Your task to perform on an android device: toggle location history Image 0: 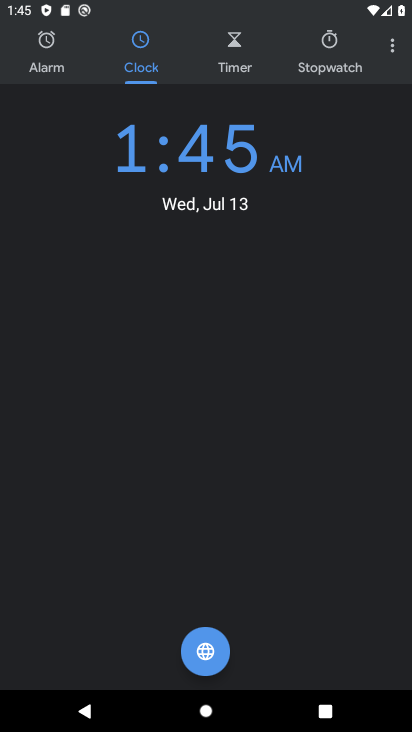
Step 0: press home button
Your task to perform on an android device: toggle location history Image 1: 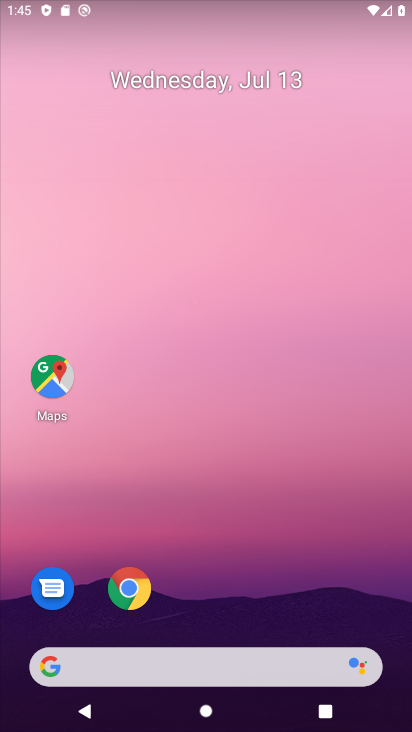
Step 1: drag from (182, 625) to (141, 111)
Your task to perform on an android device: toggle location history Image 2: 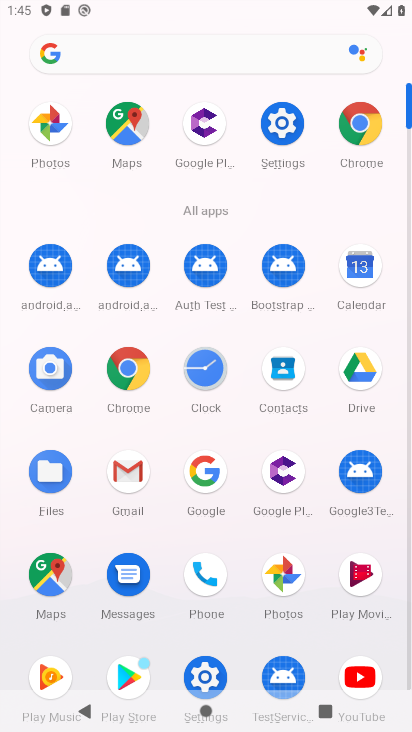
Step 2: click (278, 124)
Your task to perform on an android device: toggle location history Image 3: 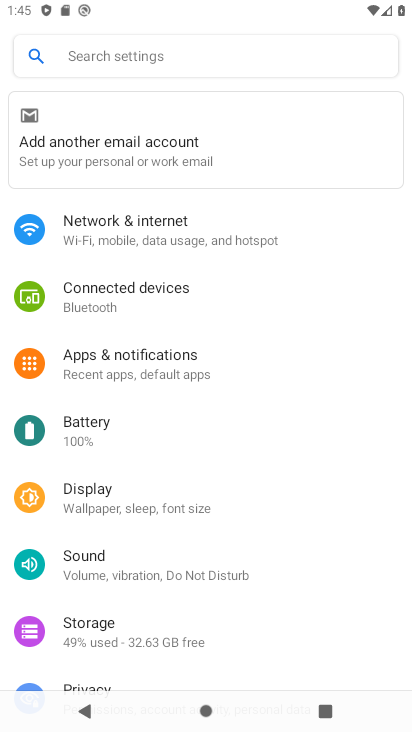
Step 3: drag from (106, 618) to (98, 286)
Your task to perform on an android device: toggle location history Image 4: 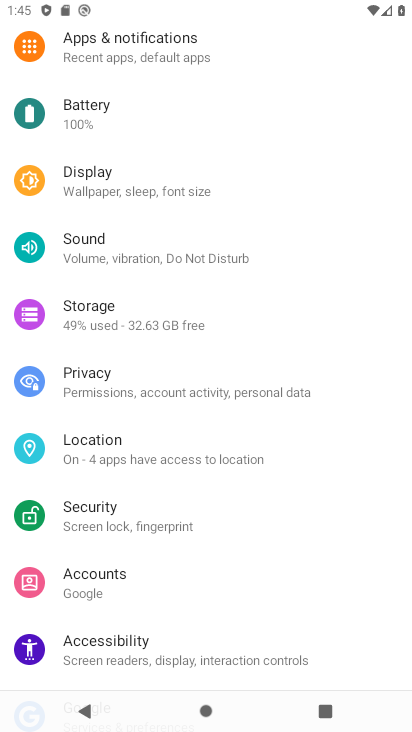
Step 4: click (83, 444)
Your task to perform on an android device: toggle location history Image 5: 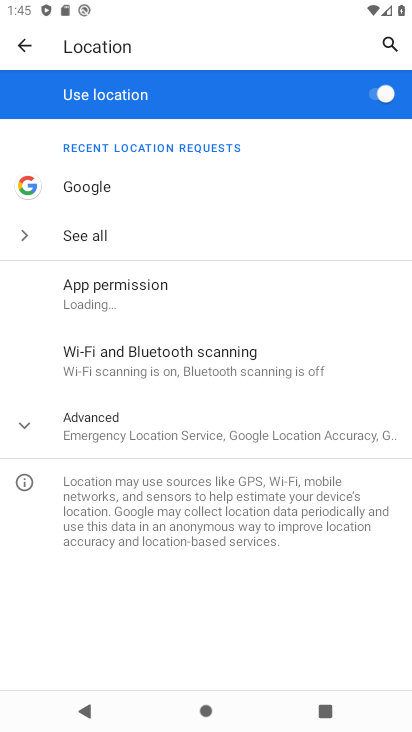
Step 5: click (95, 437)
Your task to perform on an android device: toggle location history Image 6: 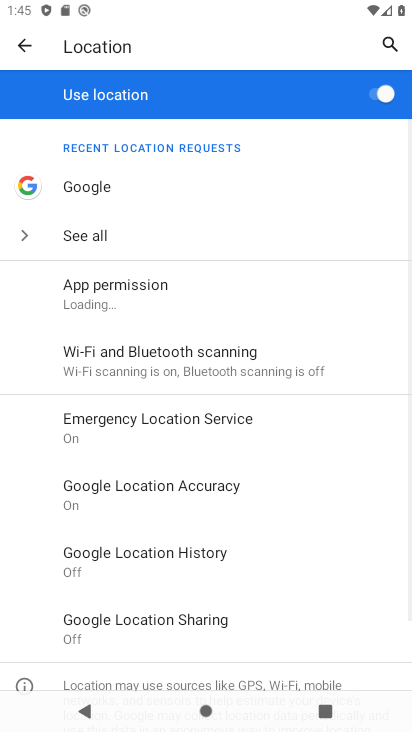
Step 6: click (159, 546)
Your task to perform on an android device: toggle location history Image 7: 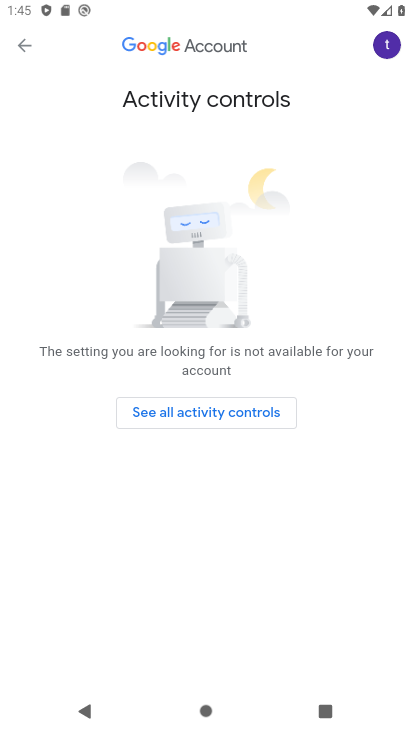
Step 7: click (180, 417)
Your task to perform on an android device: toggle location history Image 8: 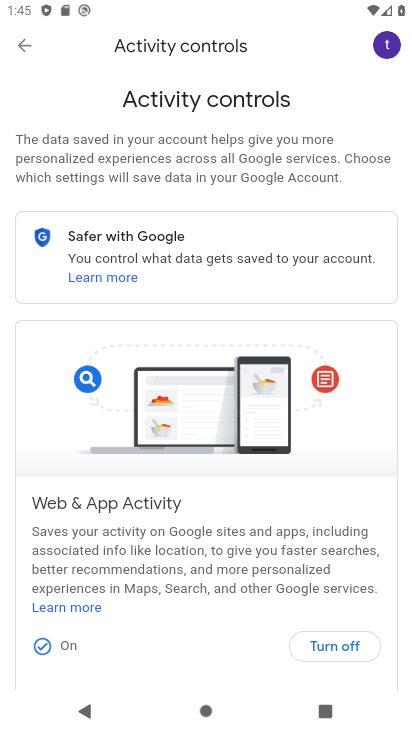
Step 8: click (323, 644)
Your task to perform on an android device: toggle location history Image 9: 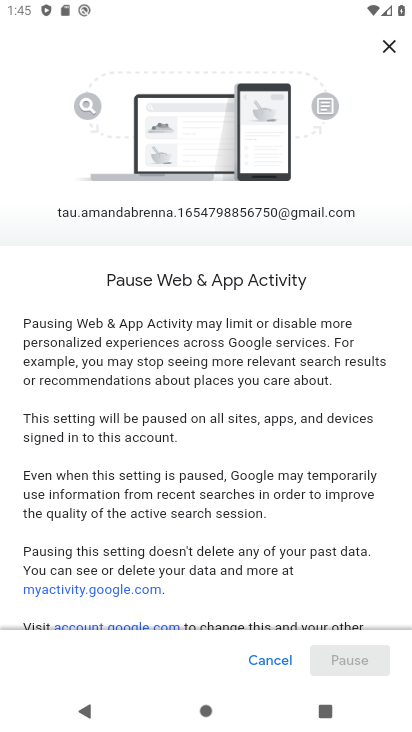
Step 9: drag from (331, 600) to (292, 140)
Your task to perform on an android device: toggle location history Image 10: 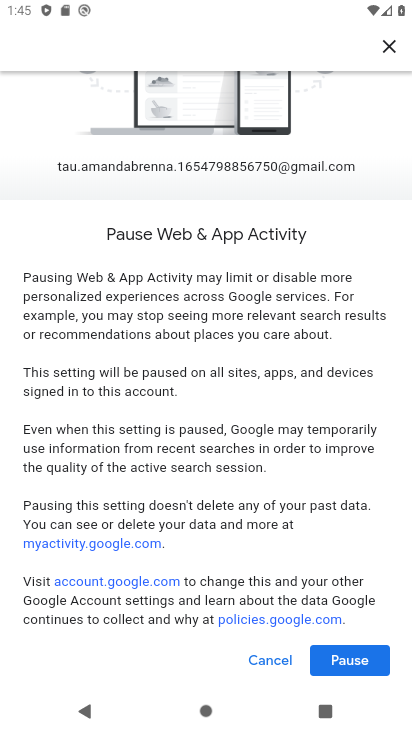
Step 10: click (335, 673)
Your task to perform on an android device: toggle location history Image 11: 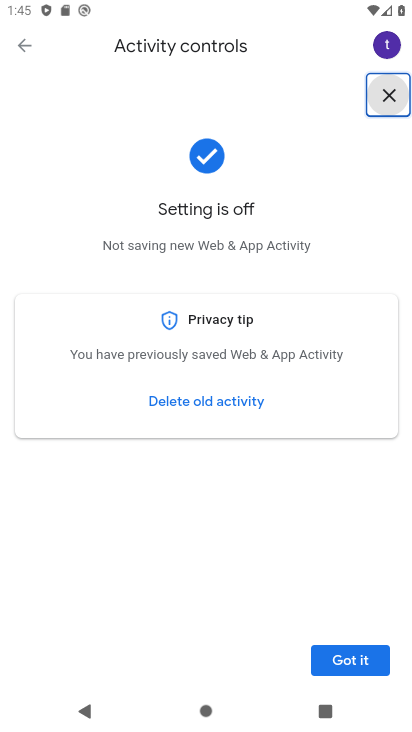
Step 11: click (351, 663)
Your task to perform on an android device: toggle location history Image 12: 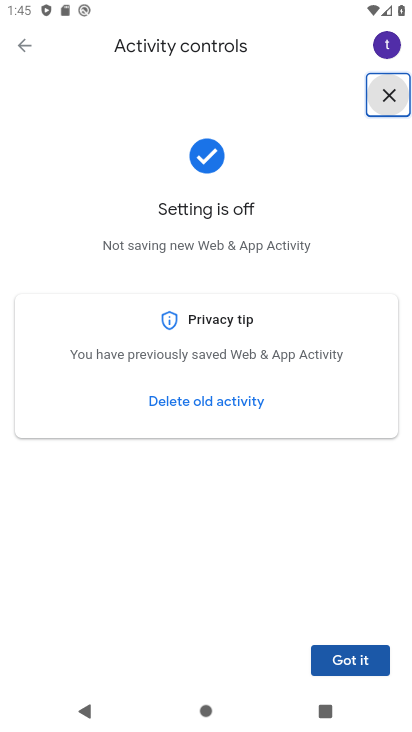
Step 12: task complete